Your task to perform on an android device: Open Reddit.com Image 0: 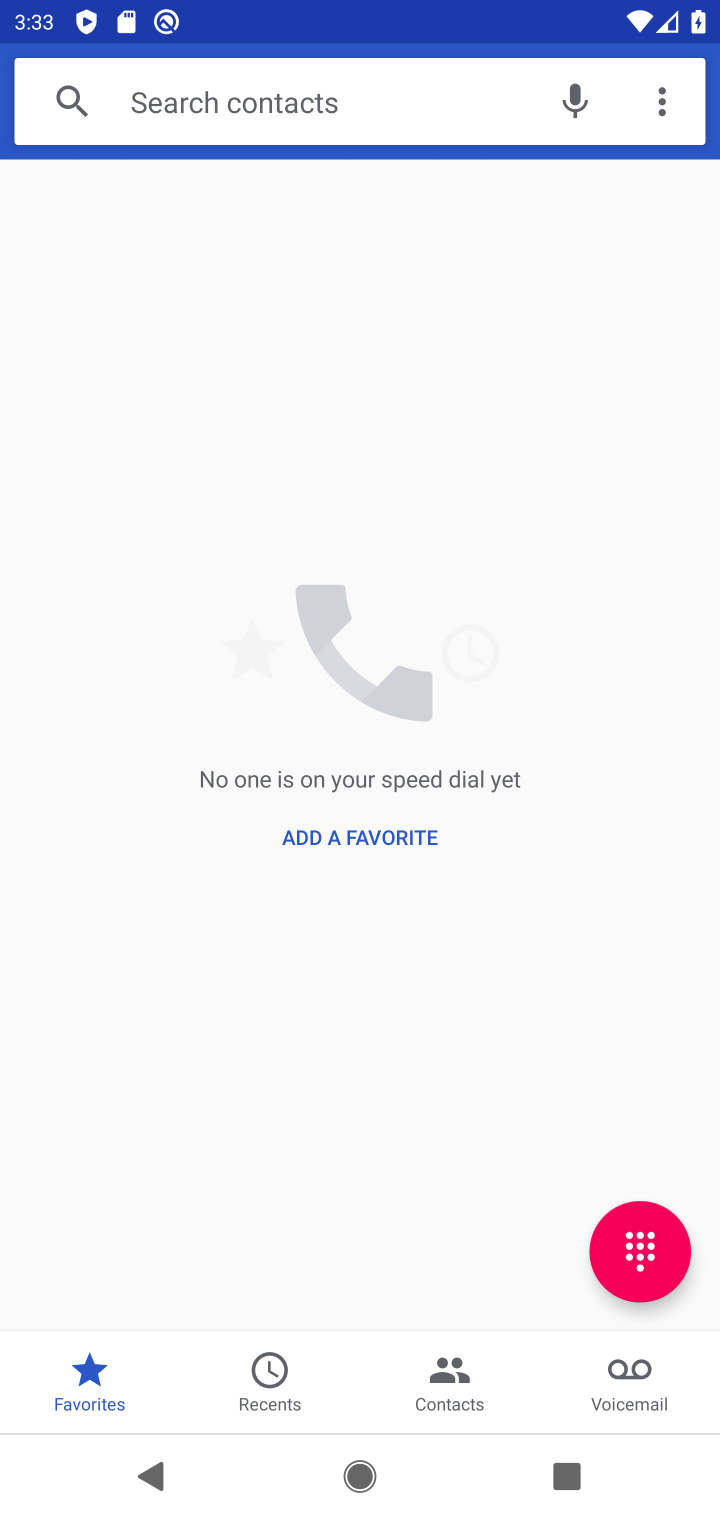
Step 0: press home button
Your task to perform on an android device: Open Reddit.com Image 1: 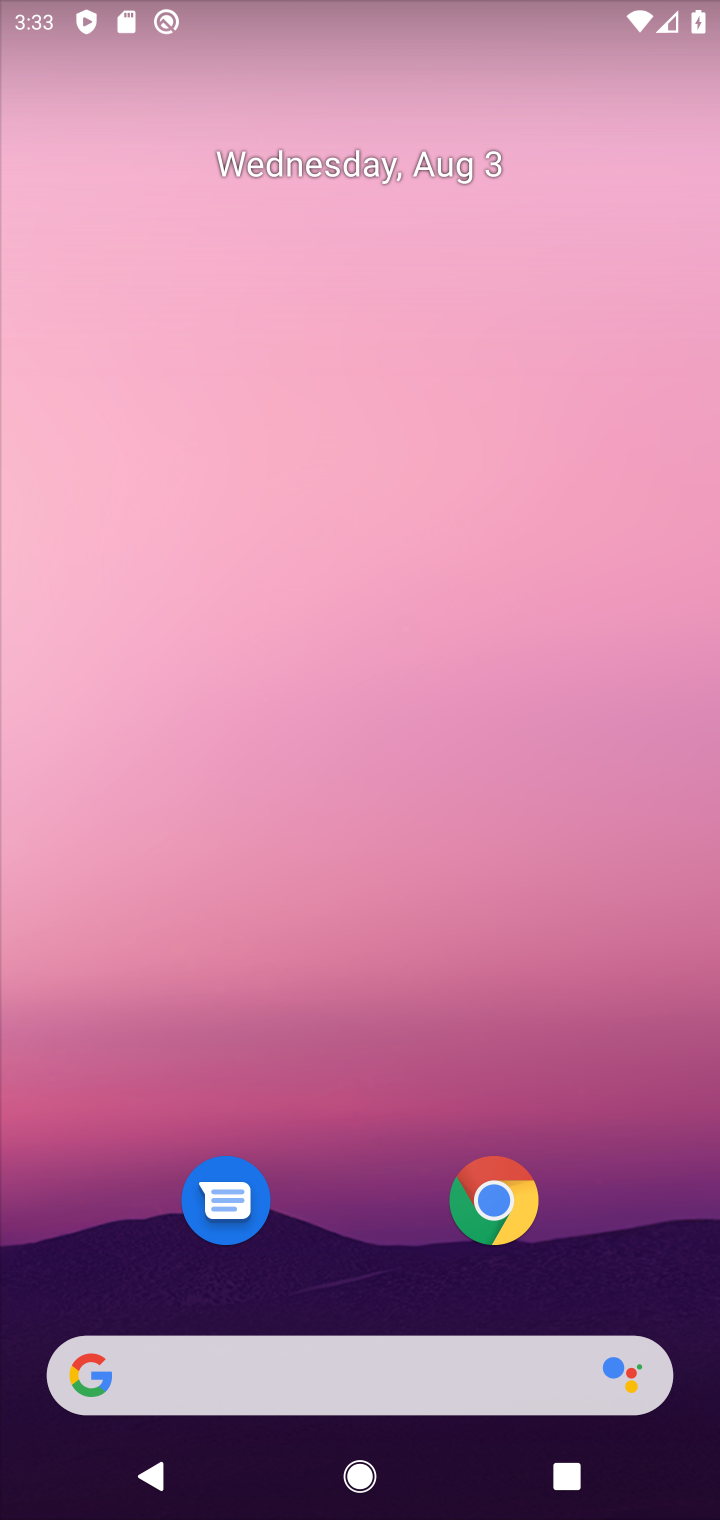
Step 1: click (501, 1217)
Your task to perform on an android device: Open Reddit.com Image 2: 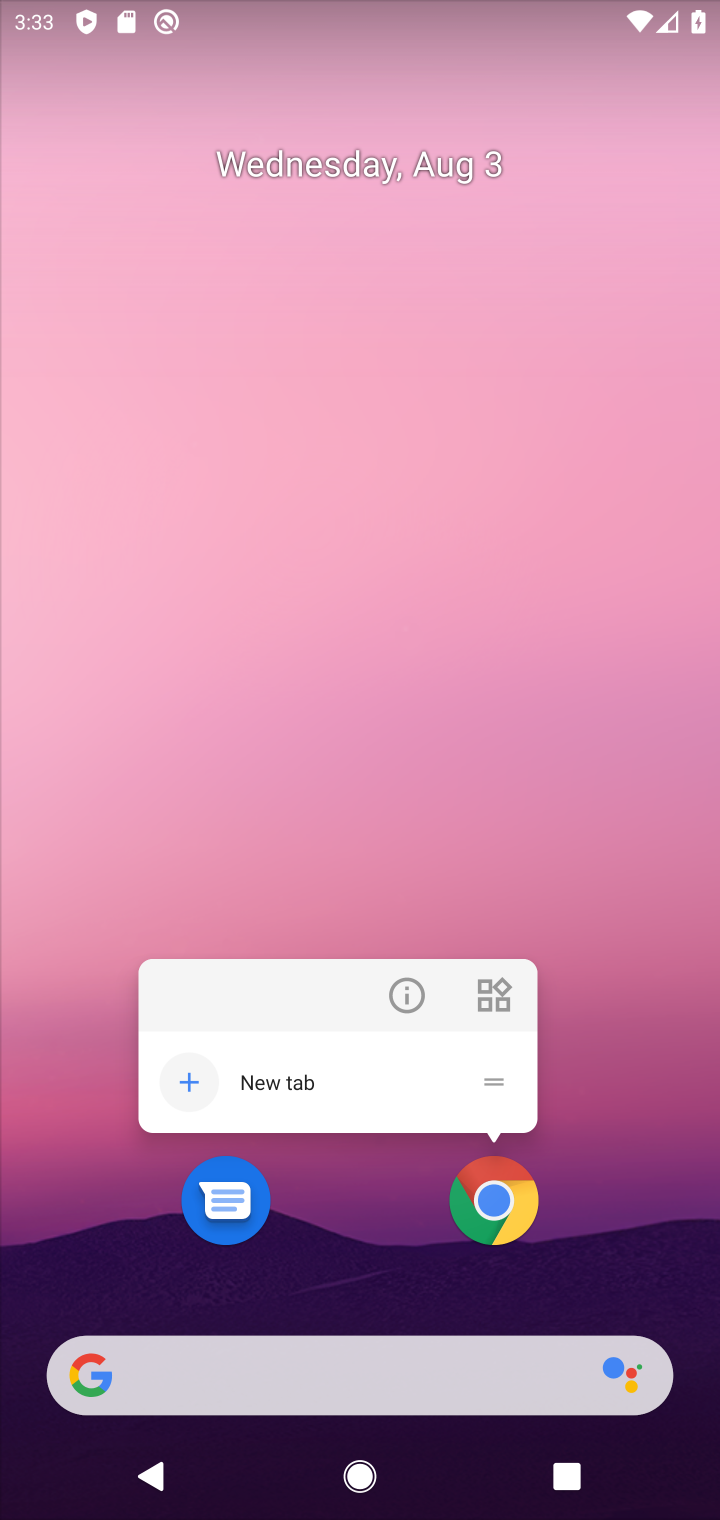
Step 2: click (497, 1217)
Your task to perform on an android device: Open Reddit.com Image 3: 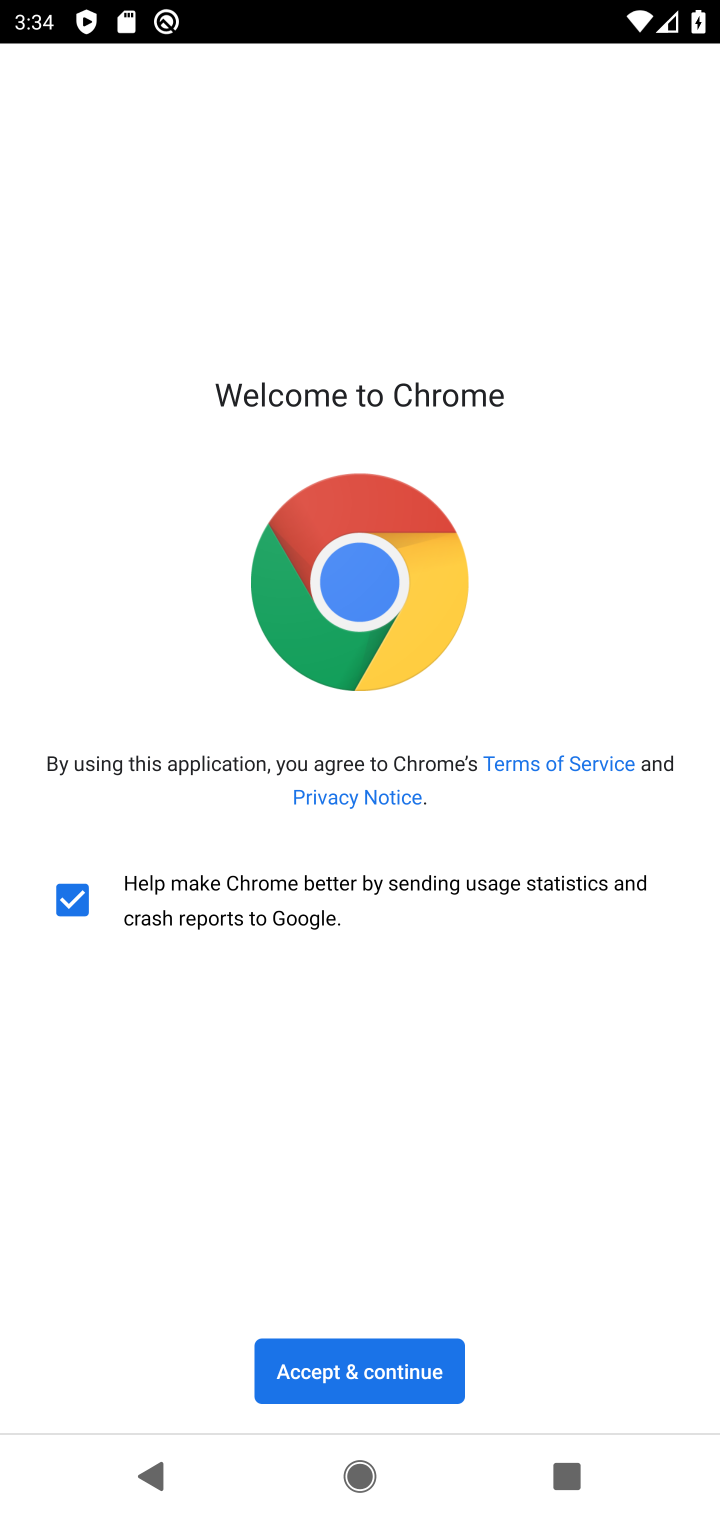
Step 3: click (402, 1371)
Your task to perform on an android device: Open Reddit.com Image 4: 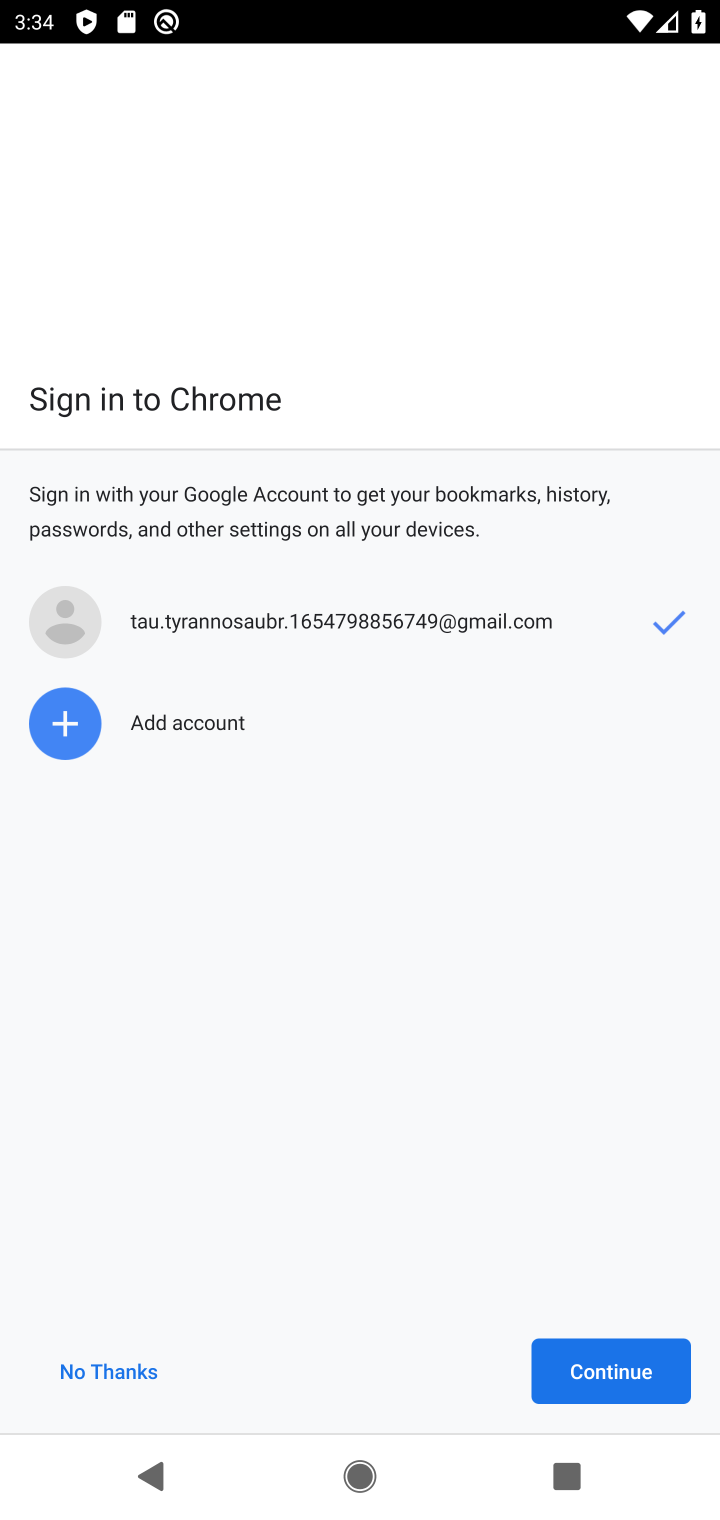
Step 4: click (652, 1360)
Your task to perform on an android device: Open Reddit.com Image 5: 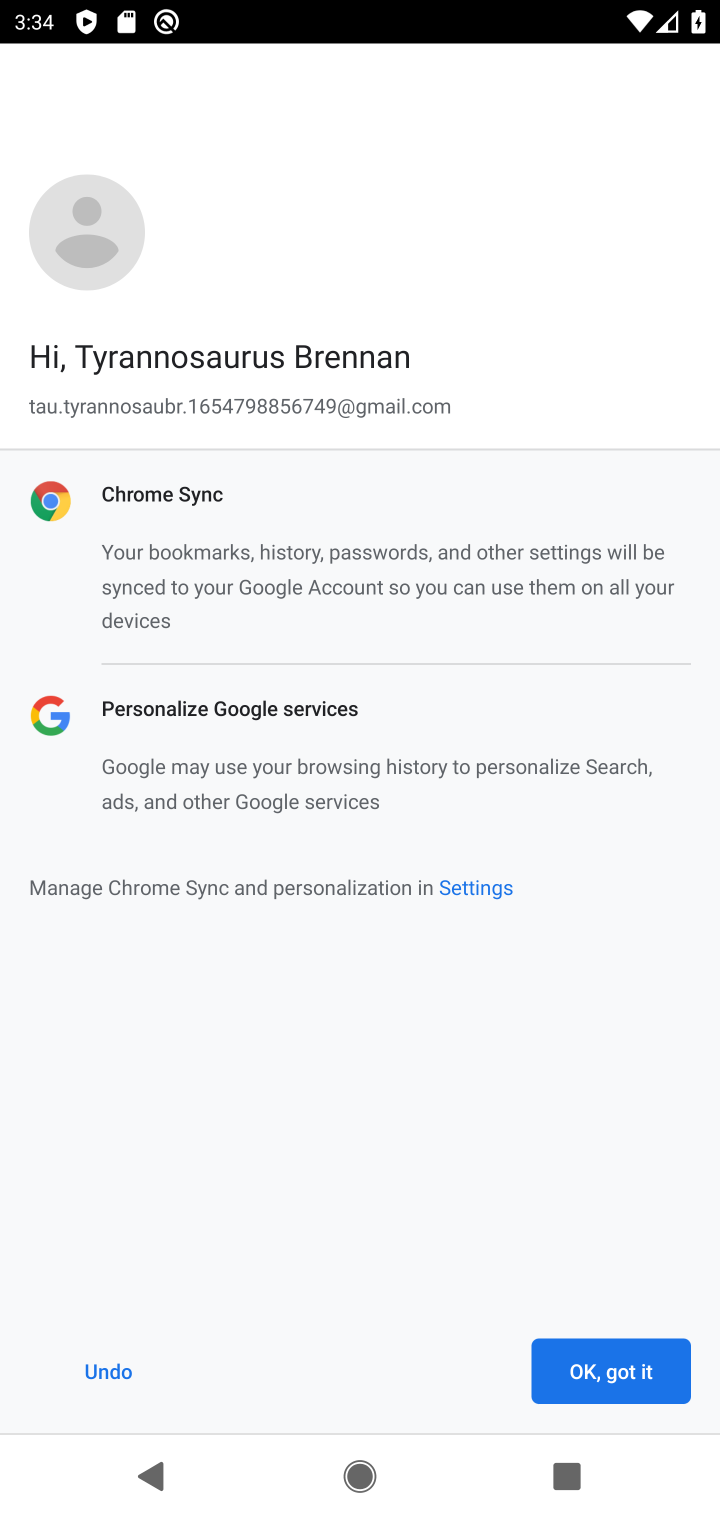
Step 5: click (652, 1362)
Your task to perform on an android device: Open Reddit.com Image 6: 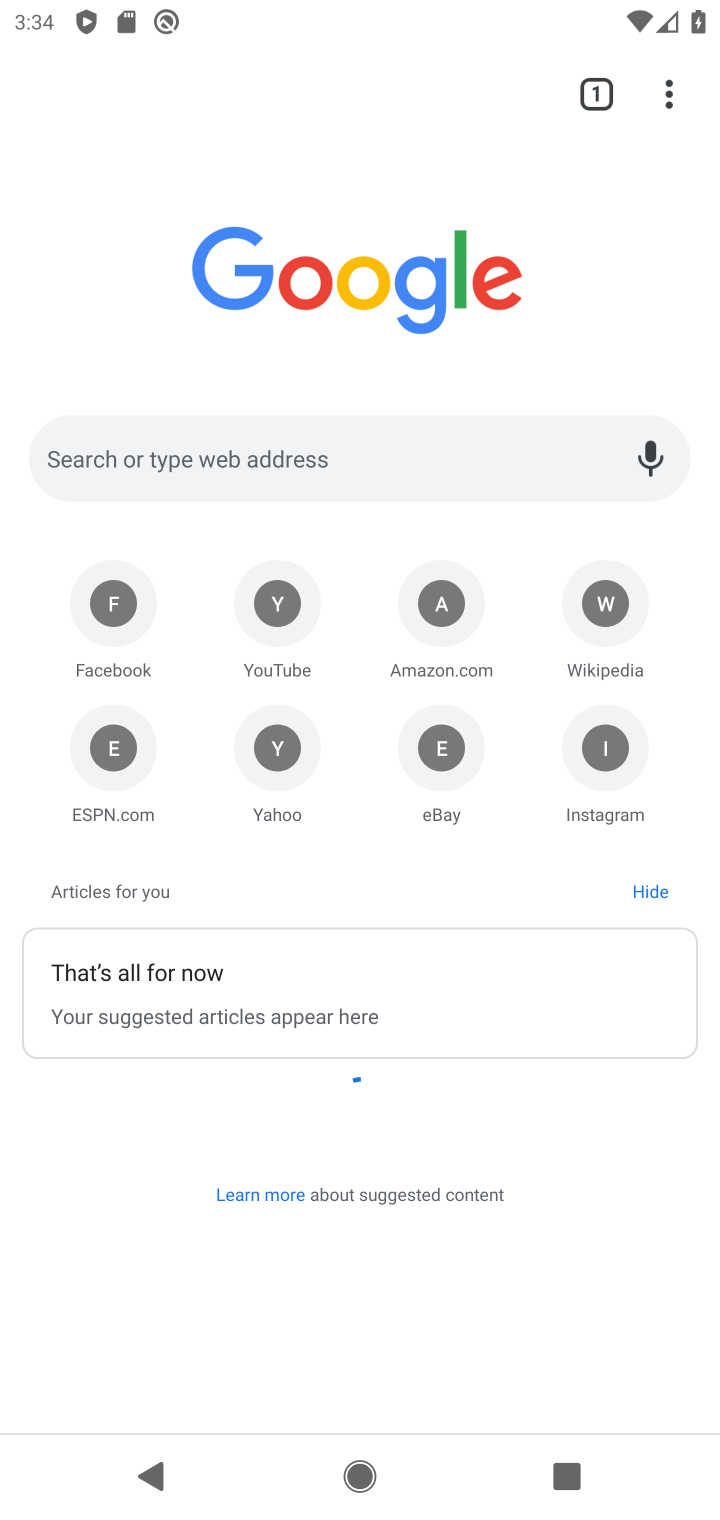
Step 6: click (373, 454)
Your task to perform on an android device: Open Reddit.com Image 7: 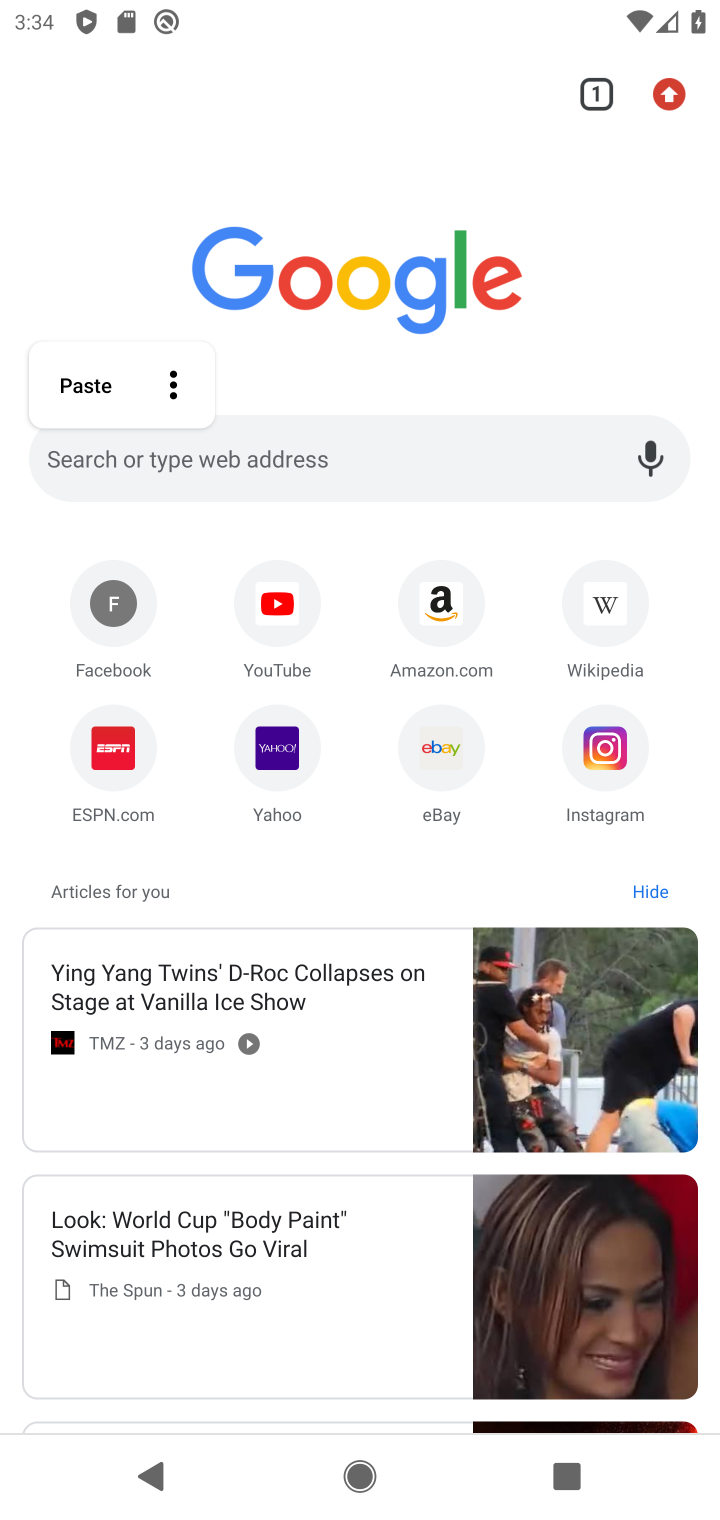
Step 7: type "Reddit.com"
Your task to perform on an android device: Open Reddit.com Image 8: 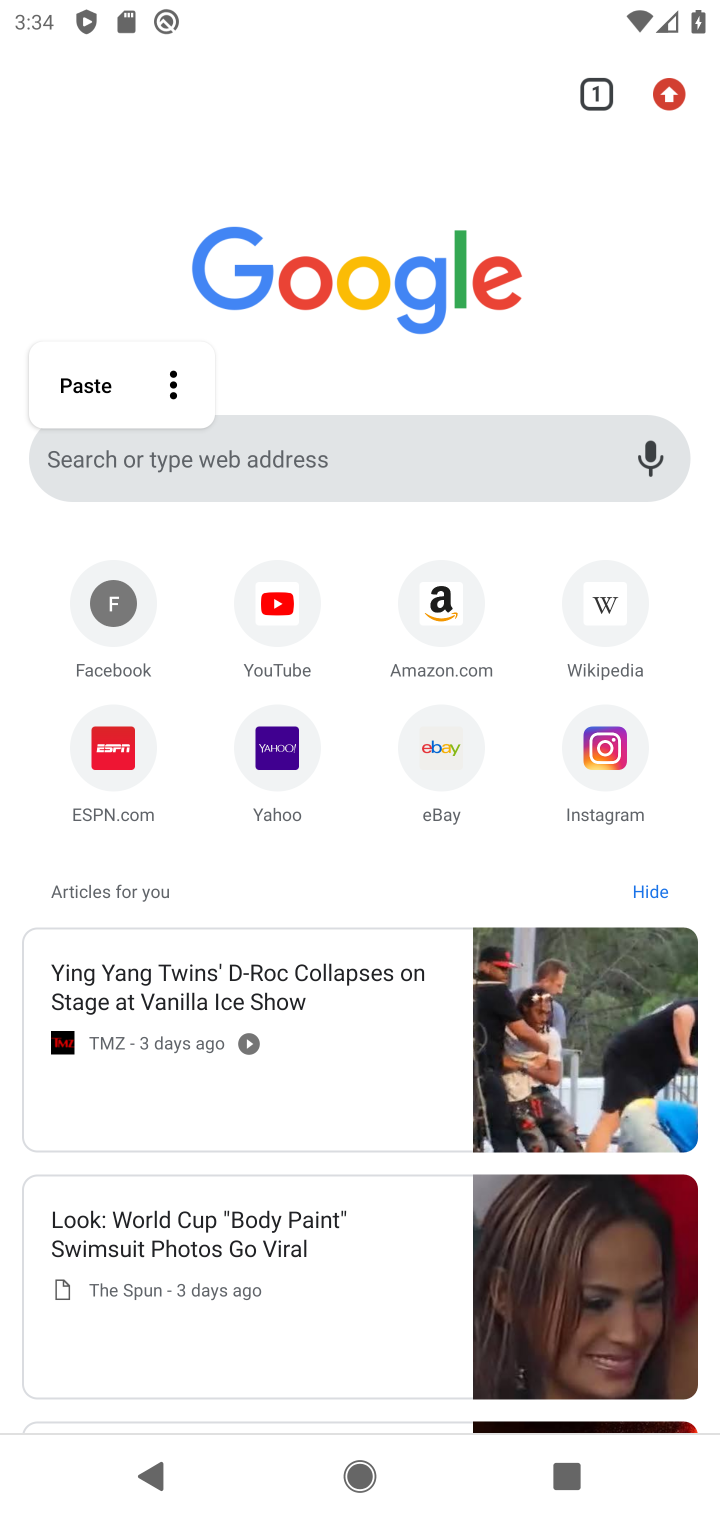
Step 8: click (311, 456)
Your task to perform on an android device: Open Reddit.com Image 9: 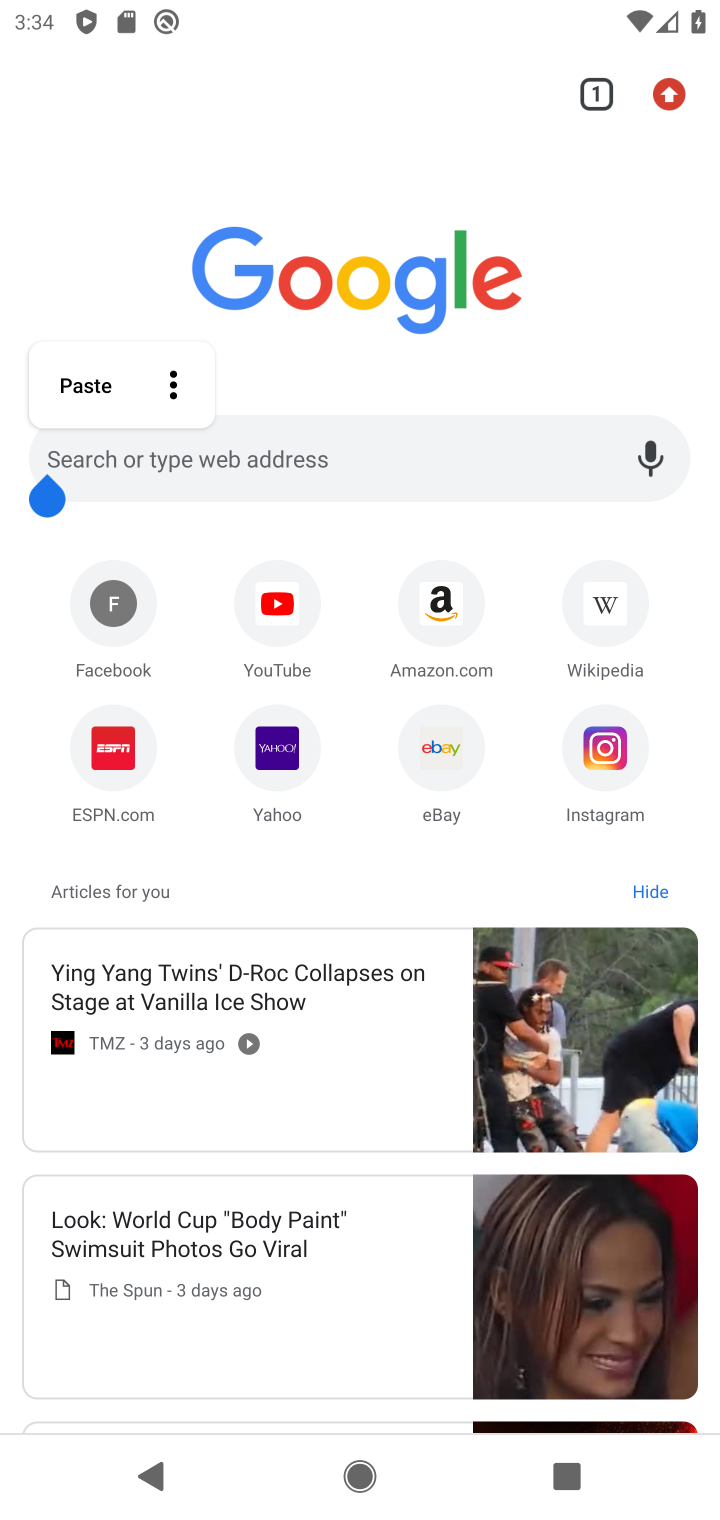
Step 9: click (450, 456)
Your task to perform on an android device: Open Reddit.com Image 10: 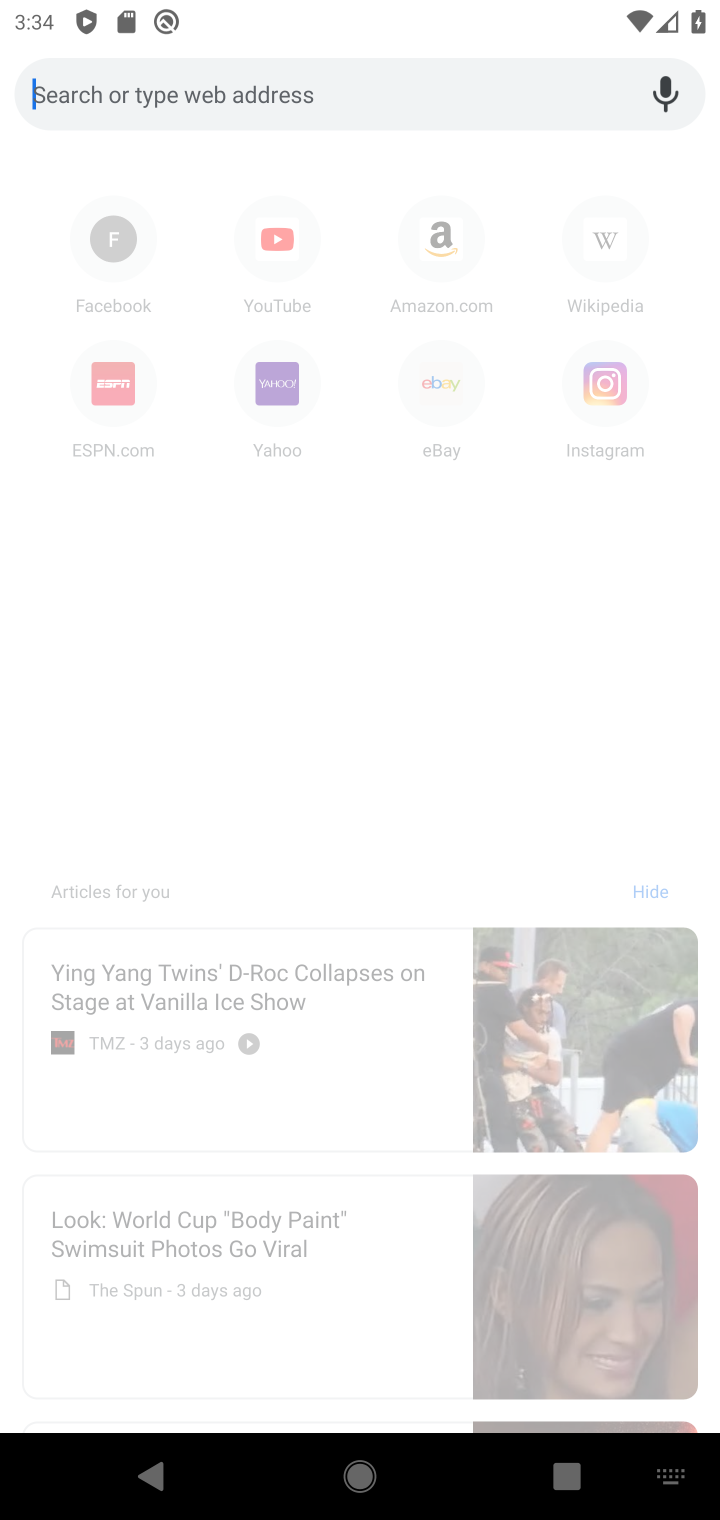
Step 10: type "reddit"
Your task to perform on an android device: Open Reddit.com Image 11: 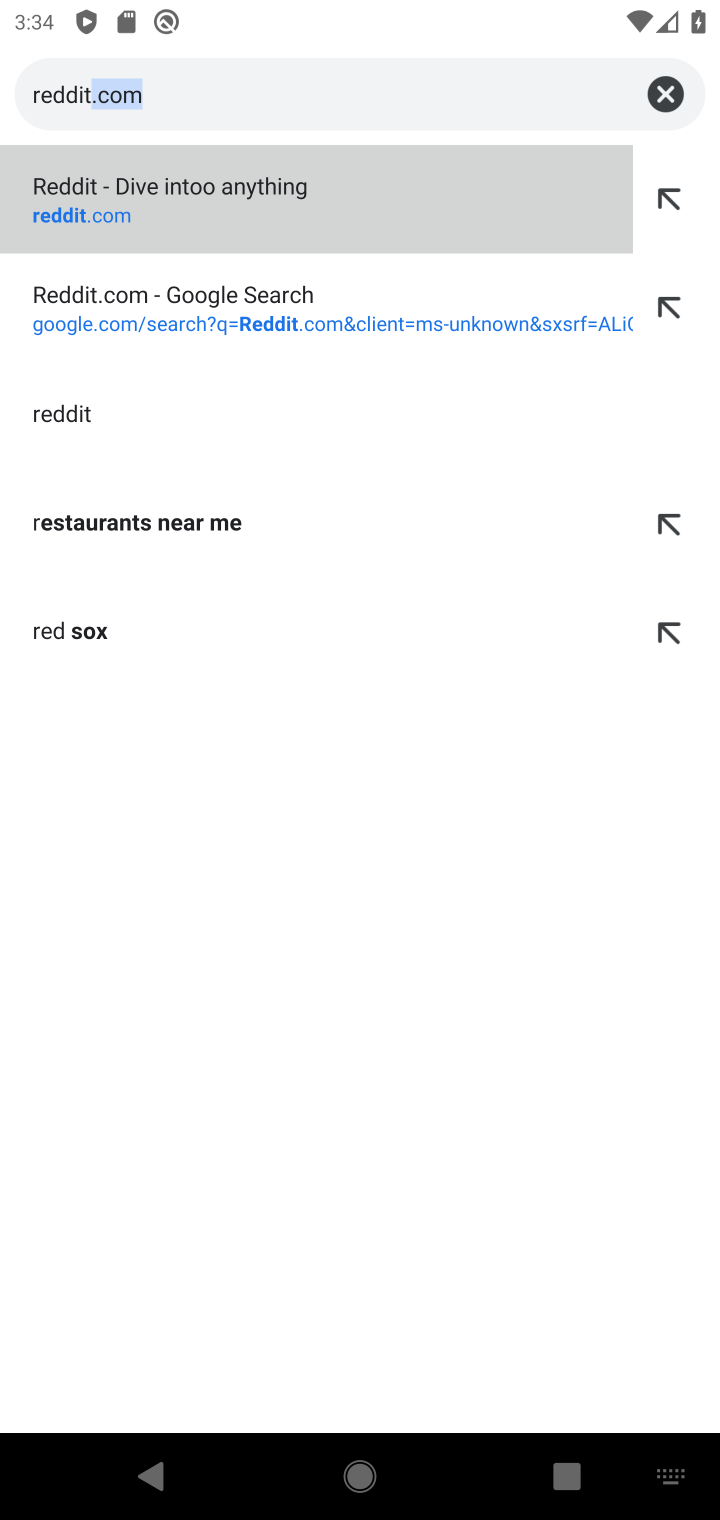
Step 11: click (261, 102)
Your task to perform on an android device: Open Reddit.com Image 12: 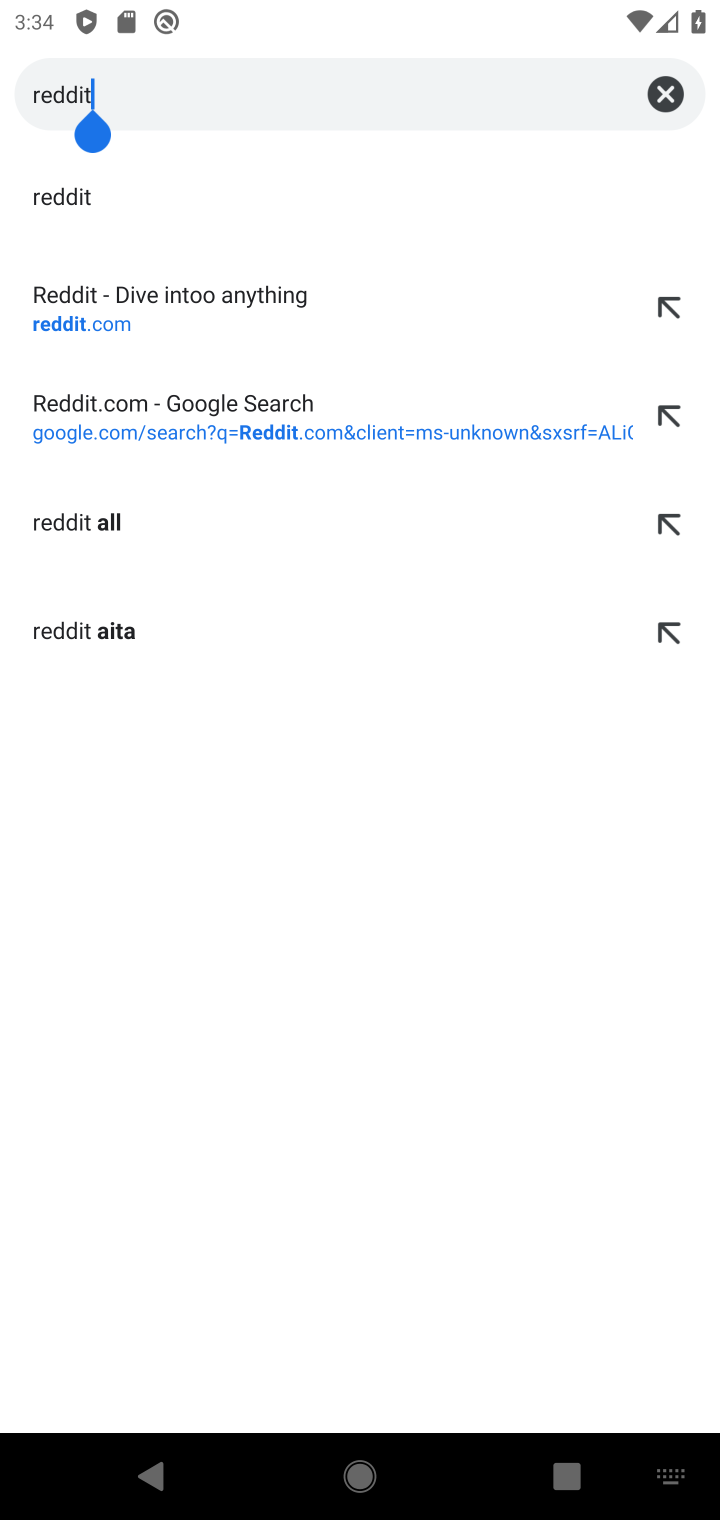
Step 12: click (115, 219)
Your task to perform on an android device: Open Reddit.com Image 13: 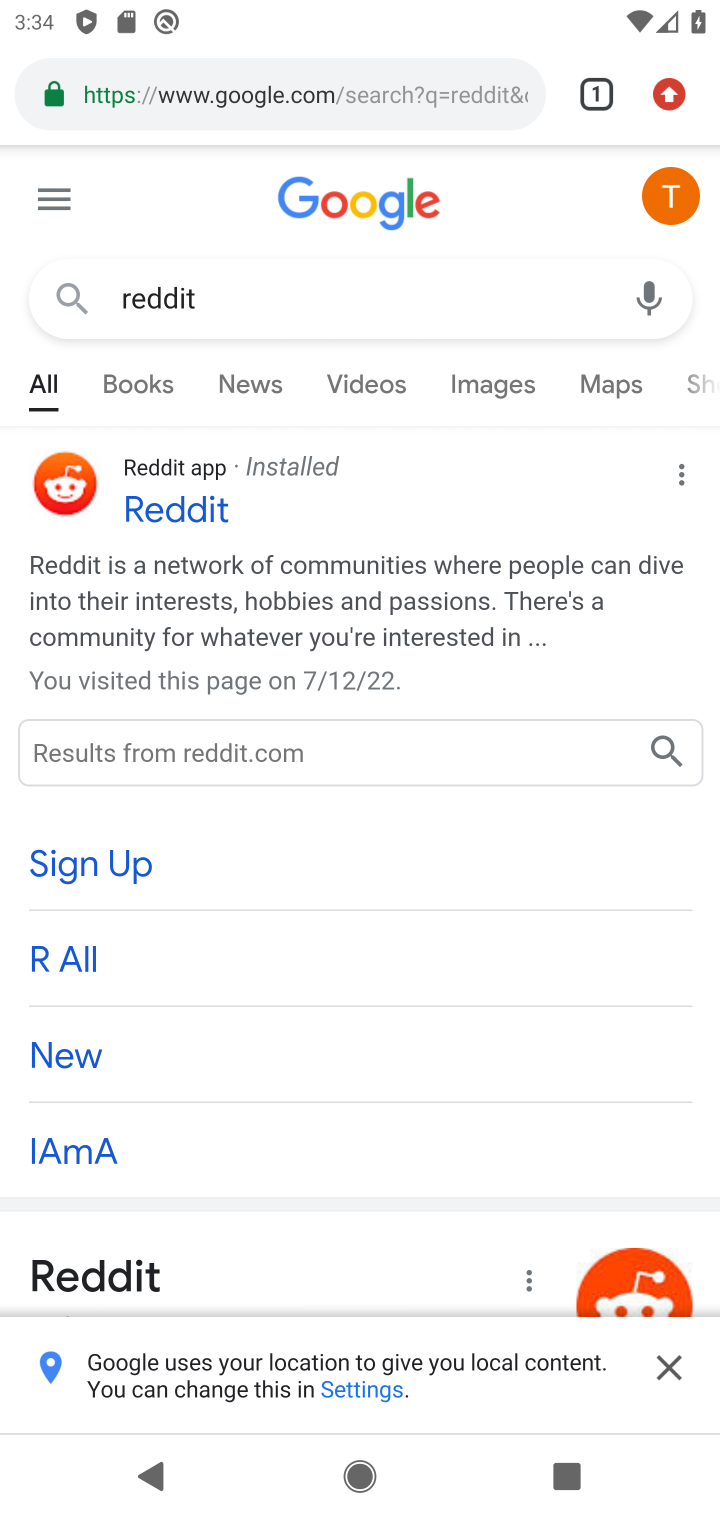
Step 13: click (162, 501)
Your task to perform on an android device: Open Reddit.com Image 14: 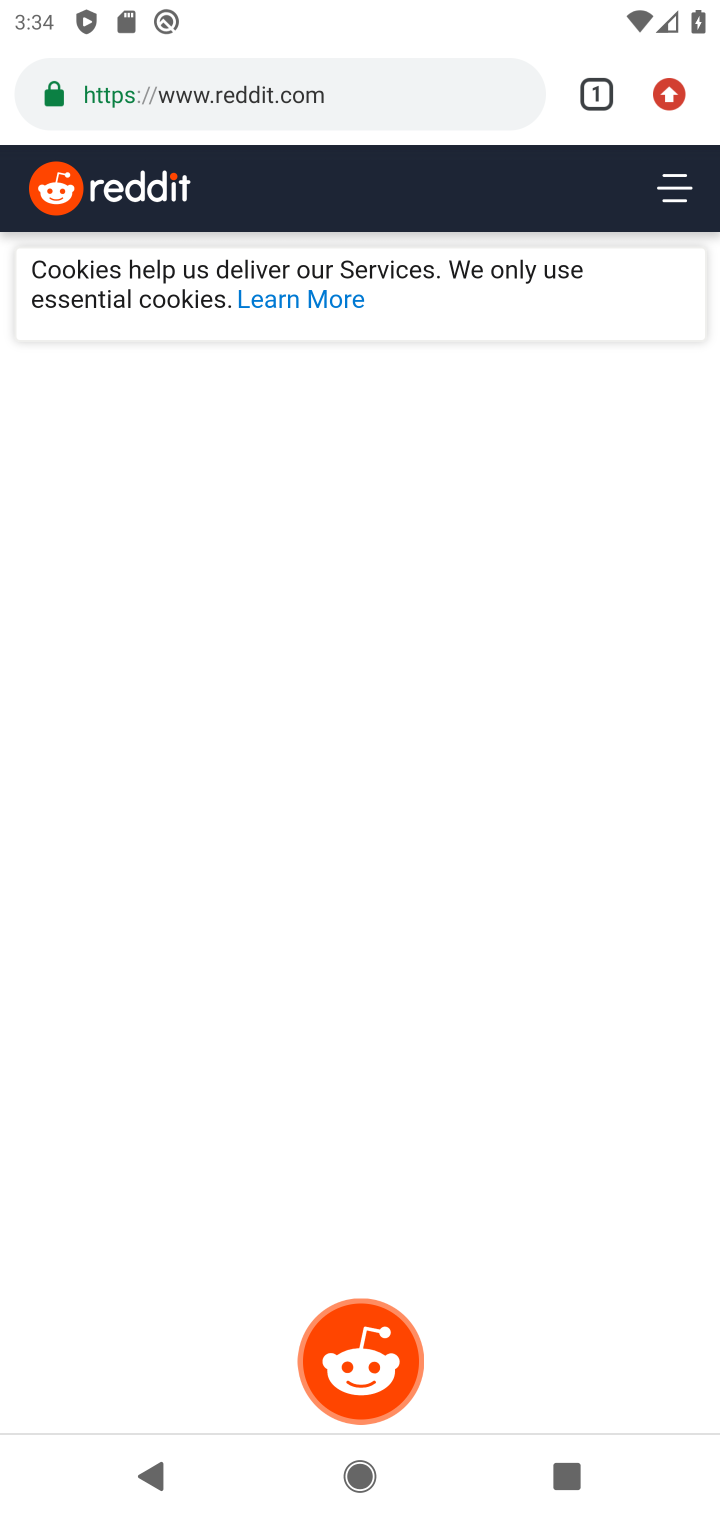
Step 14: task complete